Your task to perform on an android device: Clear all items from cart on costco.com. Add logitech g910 to the cart on costco.com Image 0: 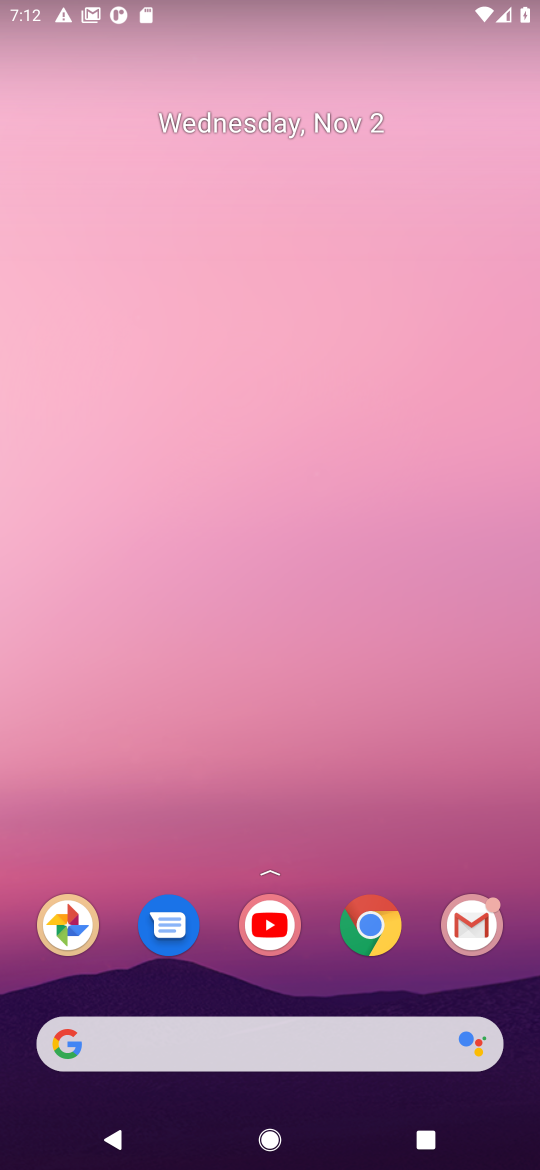
Step 0: press home button
Your task to perform on an android device: Clear all items from cart on costco.com. Add logitech g910 to the cart on costco.com Image 1: 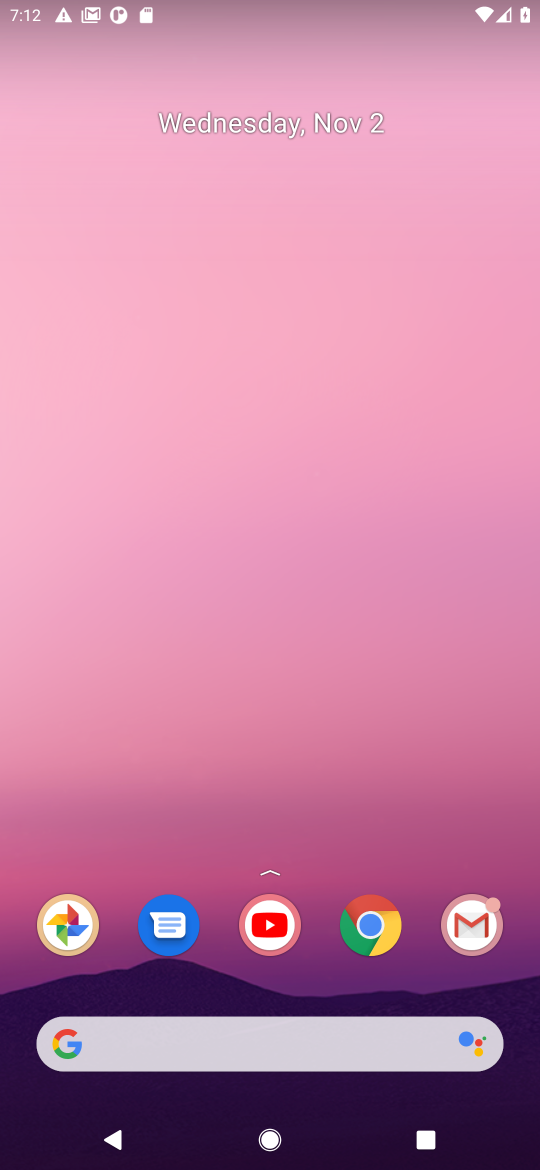
Step 1: click (92, 1038)
Your task to perform on an android device: Clear all items from cart on costco.com. Add logitech g910 to the cart on costco.com Image 2: 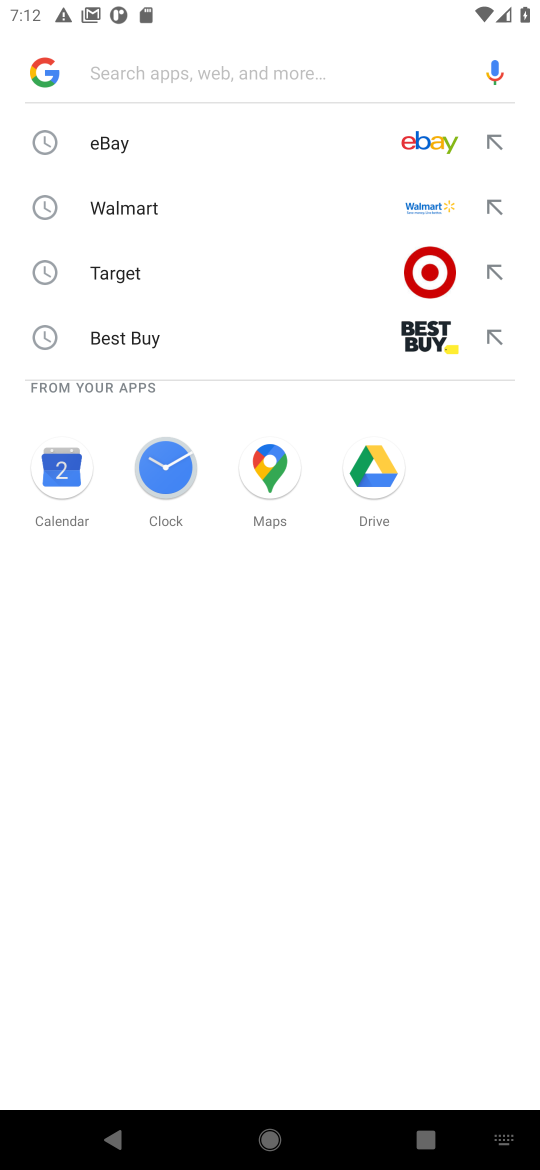
Step 2: type "costco.com"
Your task to perform on an android device: Clear all items from cart on costco.com. Add logitech g910 to the cart on costco.com Image 3: 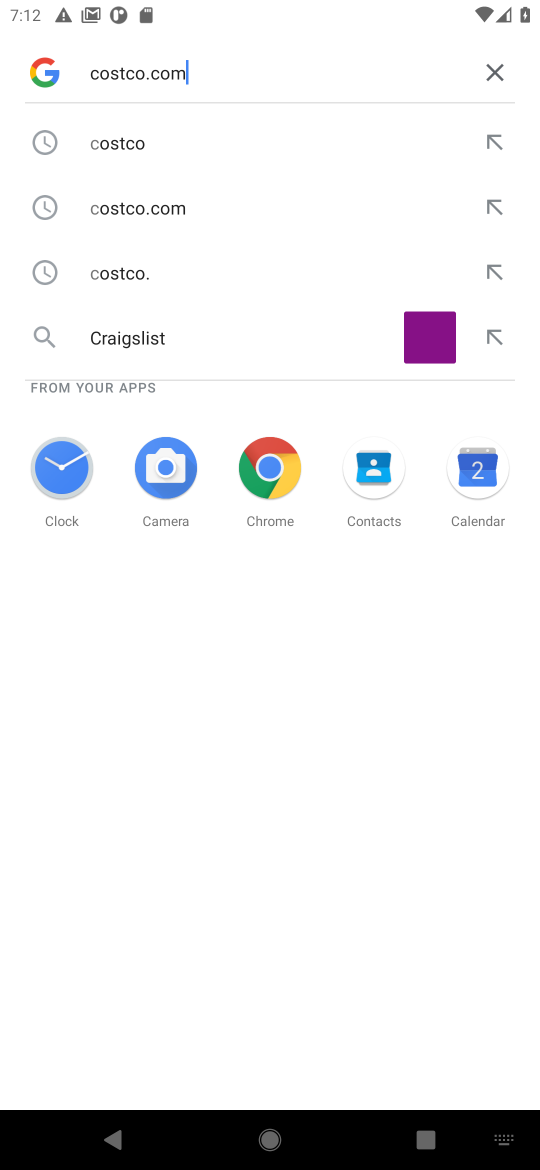
Step 3: press enter
Your task to perform on an android device: Clear all items from cart on costco.com. Add logitech g910 to the cart on costco.com Image 4: 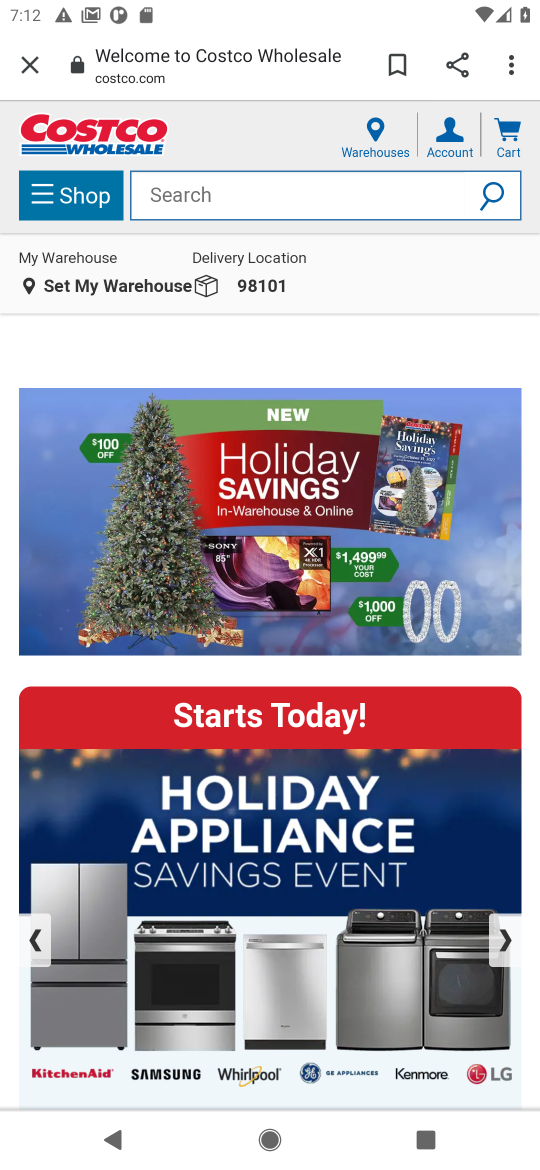
Step 4: click (520, 143)
Your task to perform on an android device: Clear all items from cart on costco.com. Add logitech g910 to the cart on costco.com Image 5: 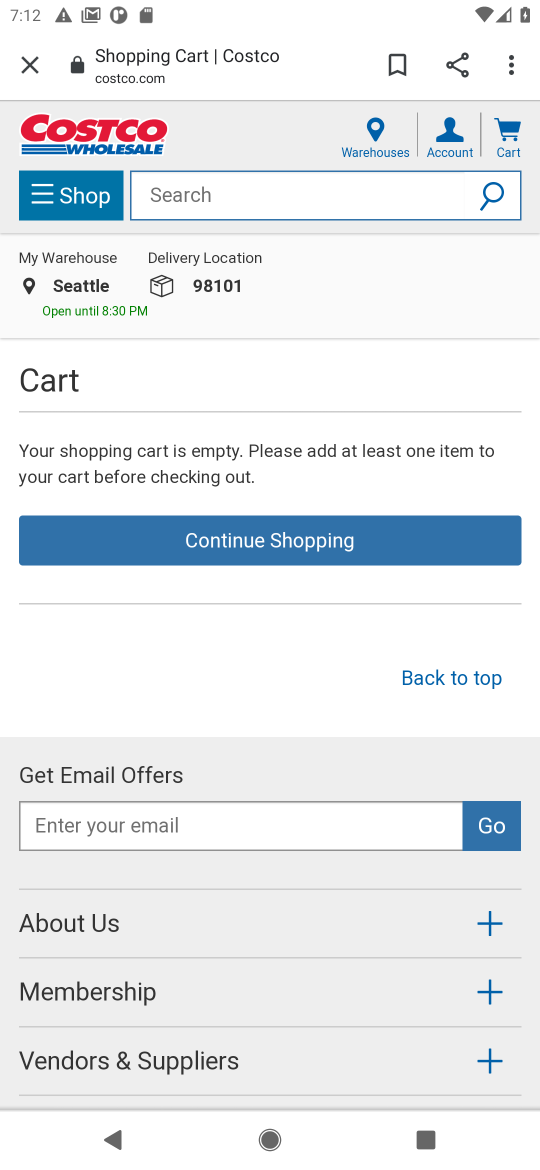
Step 5: click (200, 190)
Your task to perform on an android device: Clear all items from cart on costco.com. Add logitech g910 to the cart on costco.com Image 6: 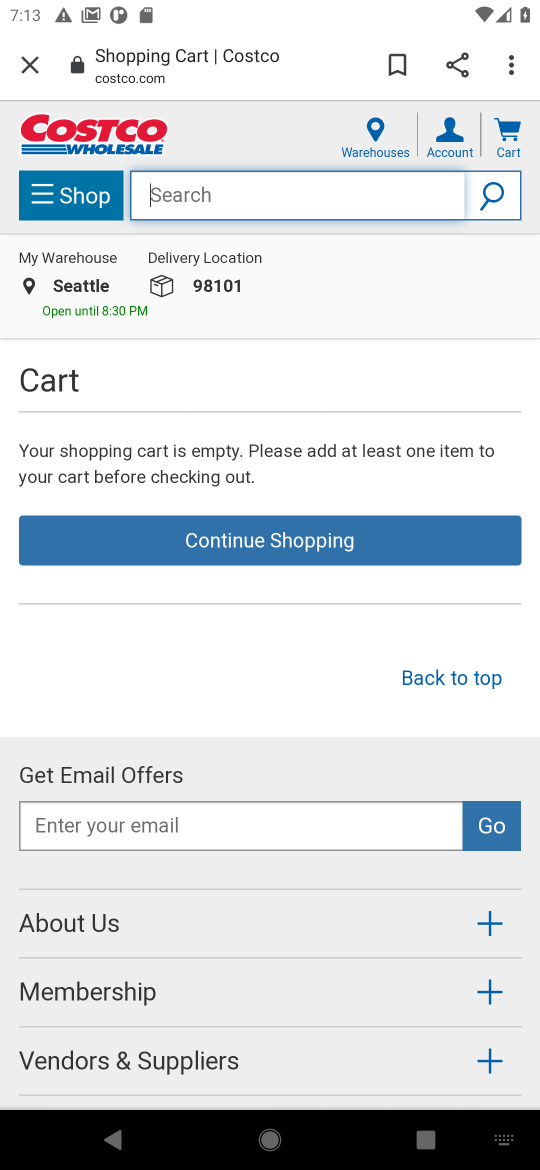
Step 6: type "logitech g910"
Your task to perform on an android device: Clear all items from cart on costco.com. Add logitech g910 to the cart on costco.com Image 7: 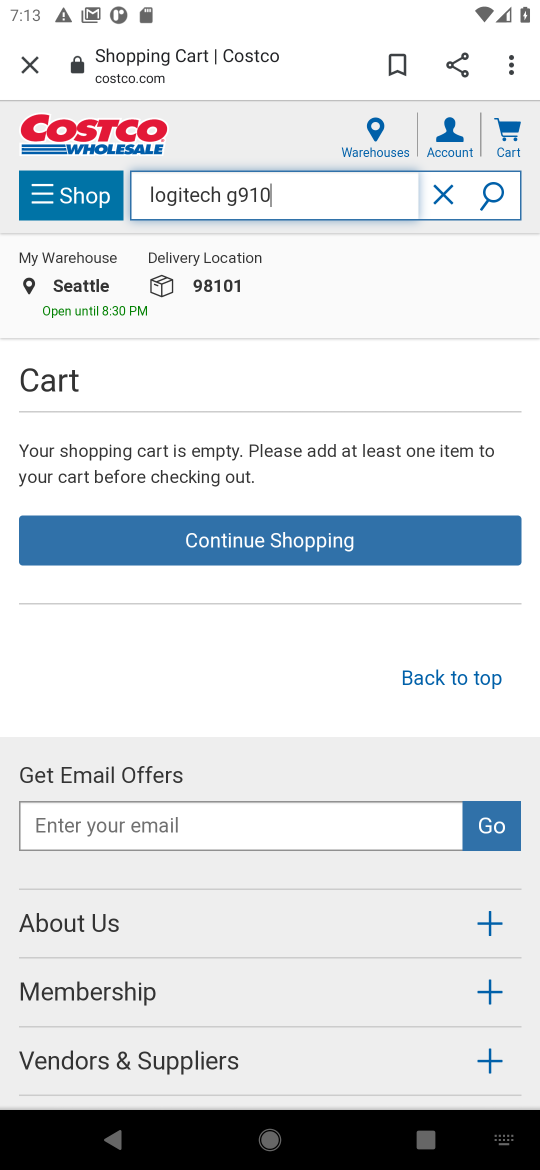
Step 7: press enter
Your task to perform on an android device: Clear all items from cart on costco.com. Add logitech g910 to the cart on costco.com Image 8: 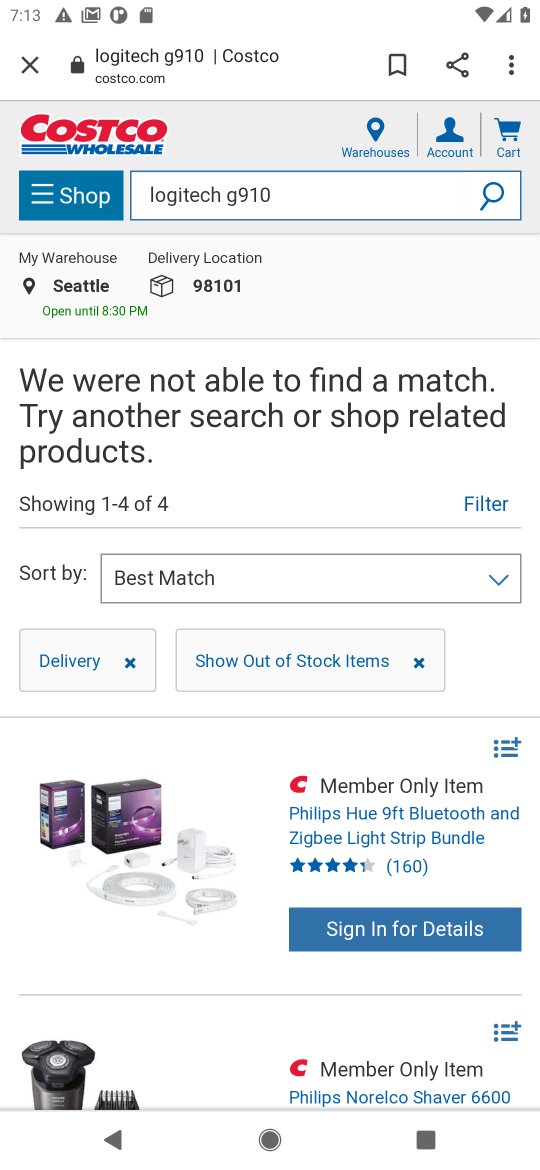
Step 8: task complete